Your task to perform on an android device: refresh tabs in the chrome app Image 0: 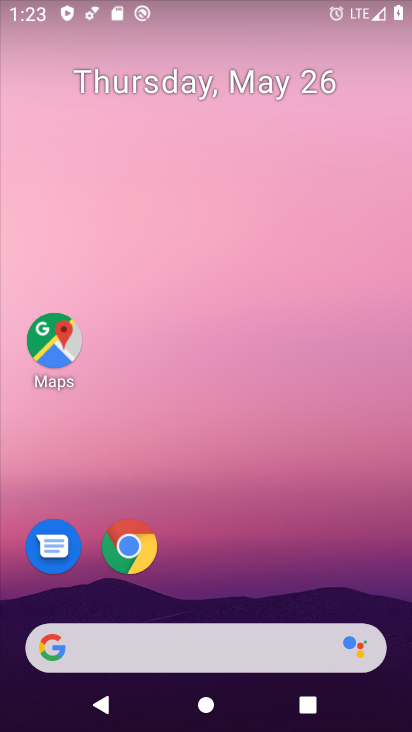
Step 0: drag from (359, 531) to (248, 88)
Your task to perform on an android device: refresh tabs in the chrome app Image 1: 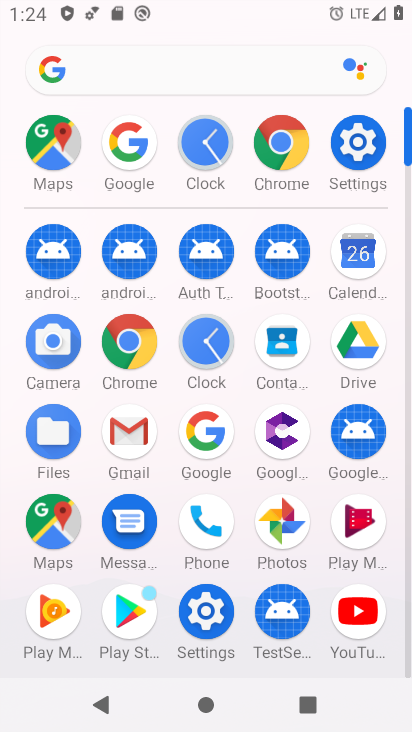
Step 1: click (125, 352)
Your task to perform on an android device: refresh tabs in the chrome app Image 2: 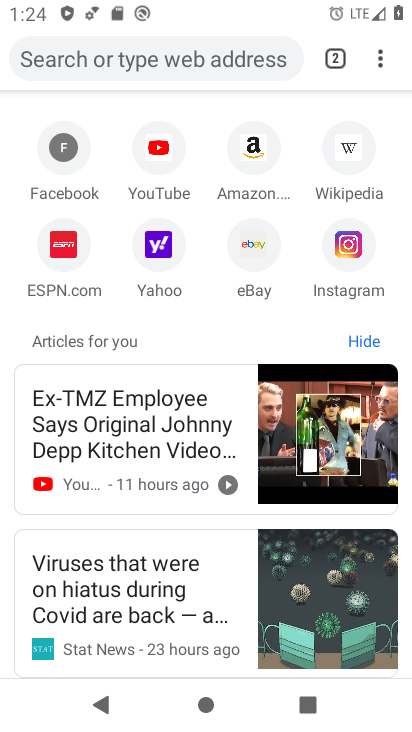
Step 2: click (380, 56)
Your task to perform on an android device: refresh tabs in the chrome app Image 3: 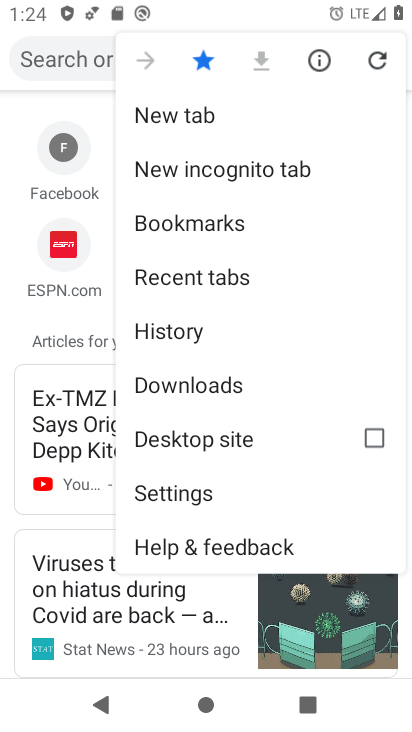
Step 3: click (377, 58)
Your task to perform on an android device: refresh tabs in the chrome app Image 4: 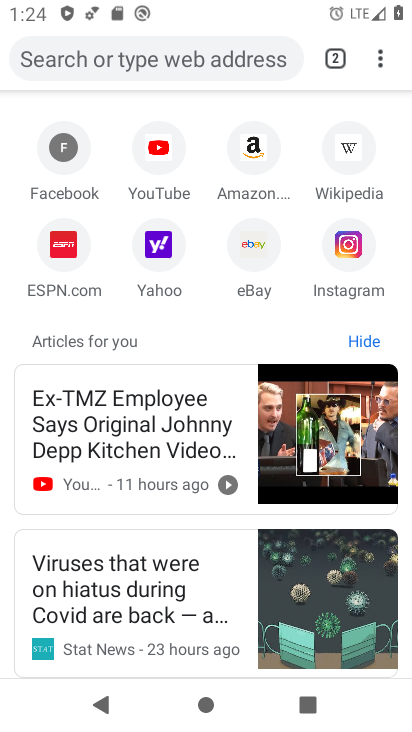
Step 4: task complete